Your task to perform on an android device: turn off notifications in google photos Image 0: 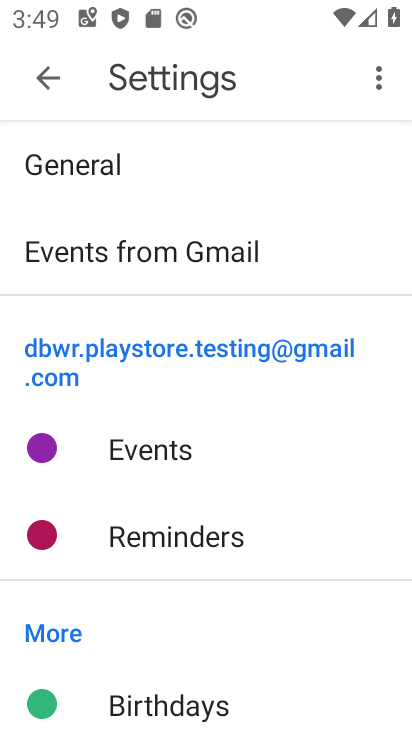
Step 0: press home button
Your task to perform on an android device: turn off notifications in google photos Image 1: 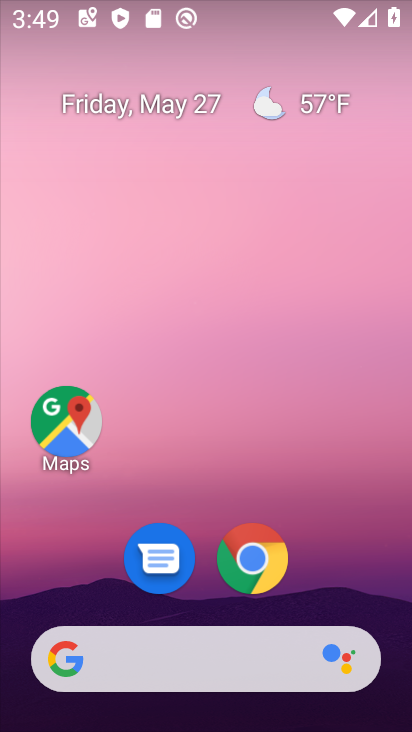
Step 1: drag from (349, 572) to (284, 19)
Your task to perform on an android device: turn off notifications in google photos Image 2: 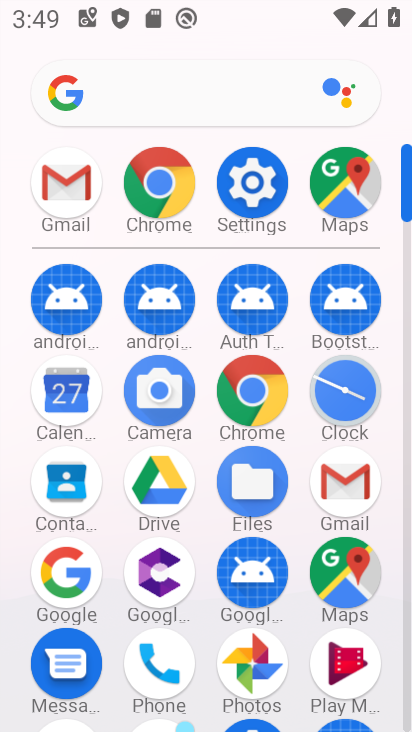
Step 2: click (267, 653)
Your task to perform on an android device: turn off notifications in google photos Image 3: 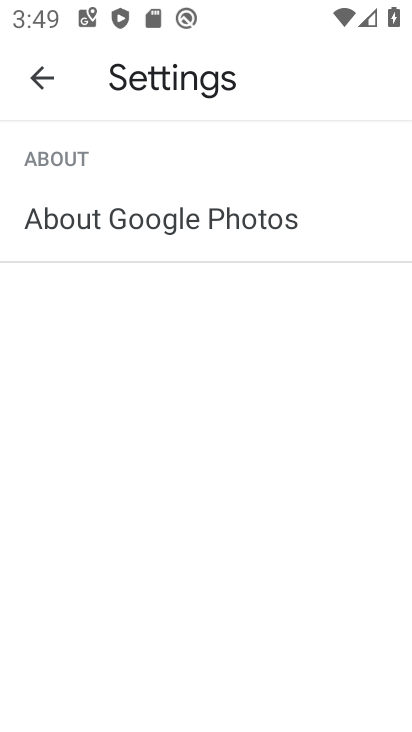
Step 3: press home button
Your task to perform on an android device: turn off notifications in google photos Image 4: 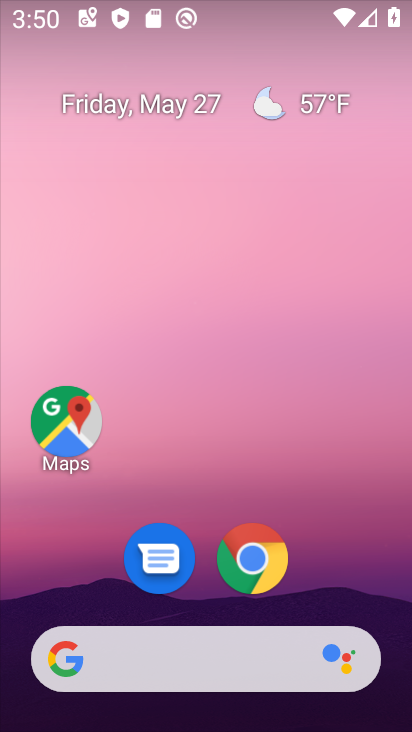
Step 4: drag from (342, 614) to (99, 22)
Your task to perform on an android device: turn off notifications in google photos Image 5: 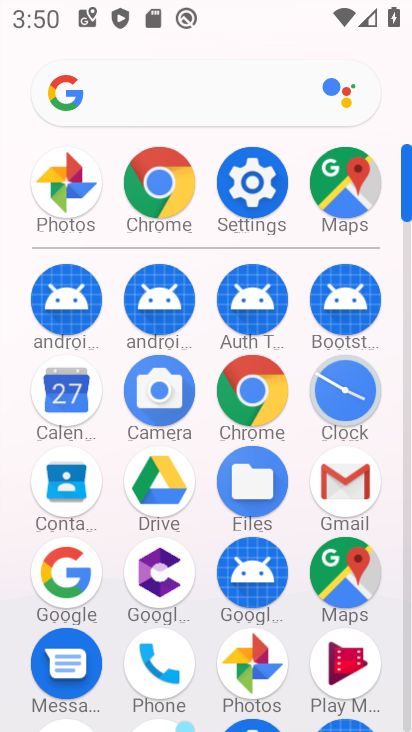
Step 5: click (86, 175)
Your task to perform on an android device: turn off notifications in google photos Image 6: 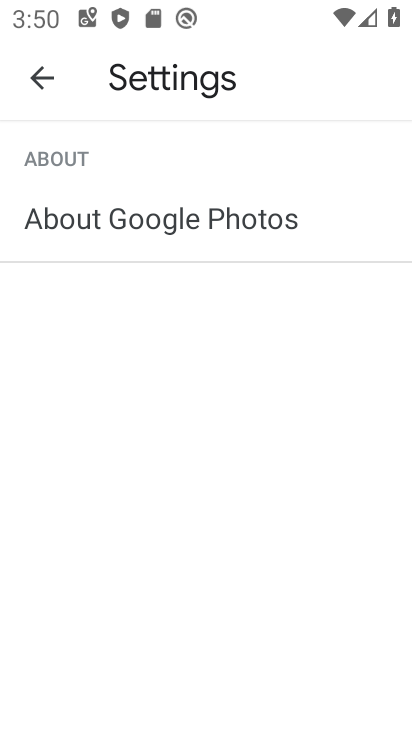
Step 6: task complete